Your task to perform on an android device: check storage Image 0: 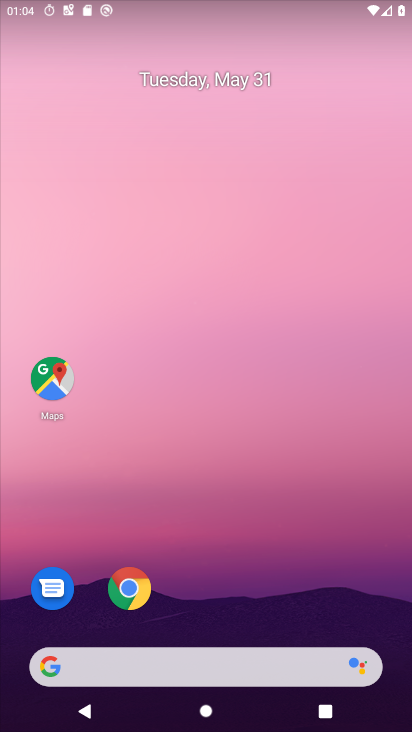
Step 0: drag from (260, 633) to (230, 18)
Your task to perform on an android device: check storage Image 1: 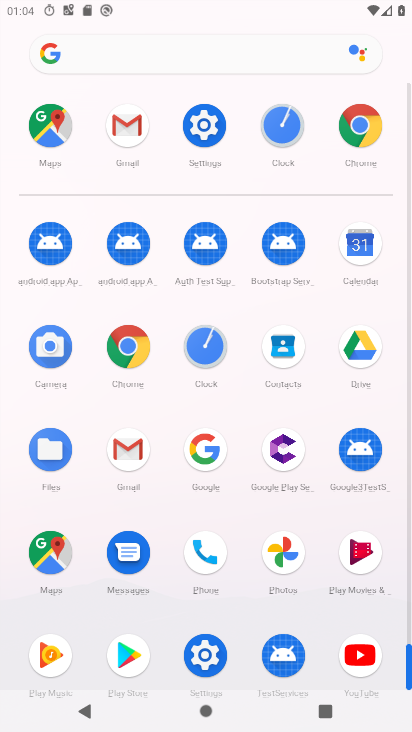
Step 1: click (196, 109)
Your task to perform on an android device: check storage Image 2: 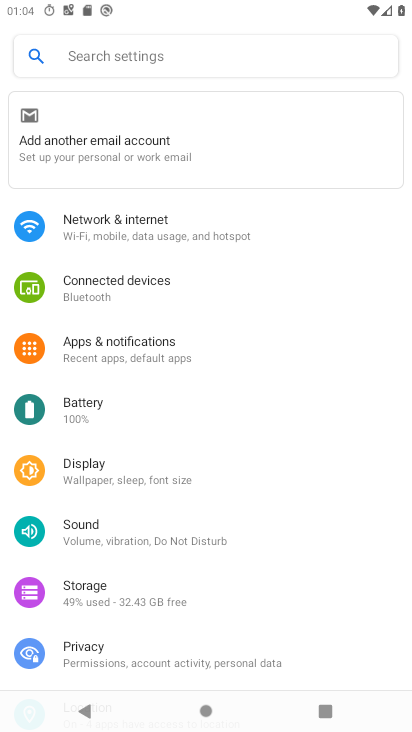
Step 2: click (120, 532)
Your task to perform on an android device: check storage Image 3: 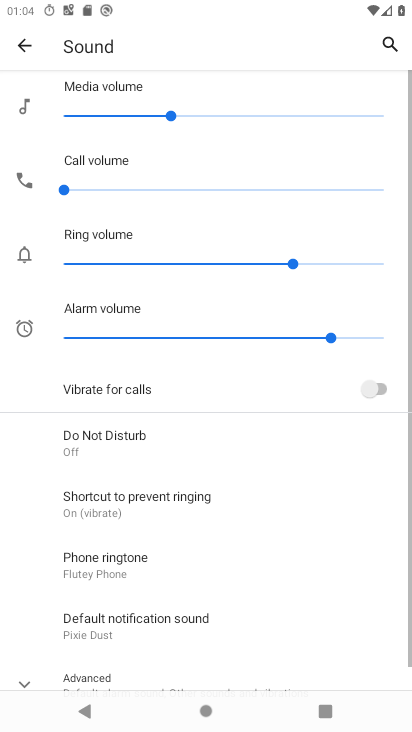
Step 3: press back button
Your task to perform on an android device: check storage Image 4: 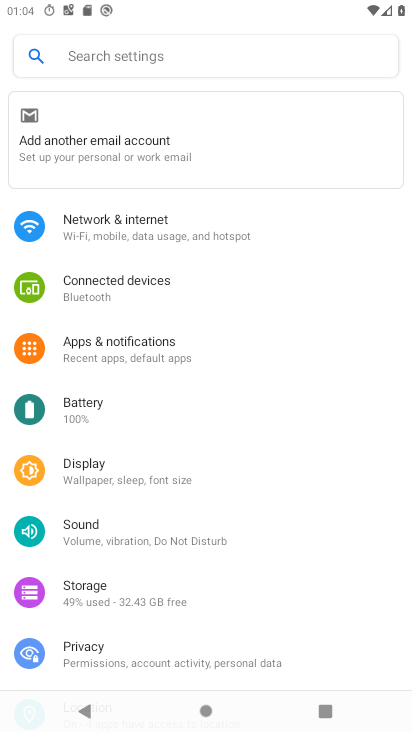
Step 4: click (119, 589)
Your task to perform on an android device: check storage Image 5: 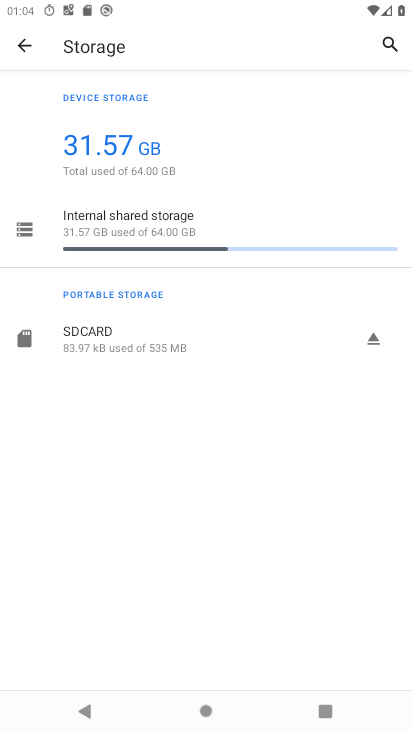
Step 5: task complete